Your task to perform on an android device: check the backup settings in the google photos Image 0: 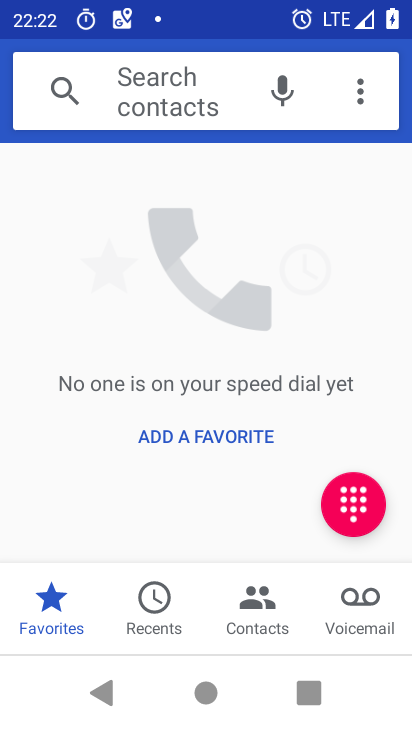
Step 0: drag from (201, 467) to (304, 161)
Your task to perform on an android device: check the backup settings in the google photos Image 1: 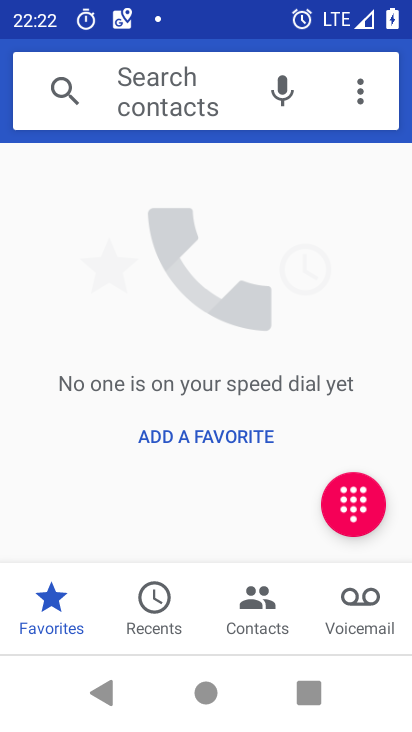
Step 1: press home button
Your task to perform on an android device: check the backup settings in the google photos Image 2: 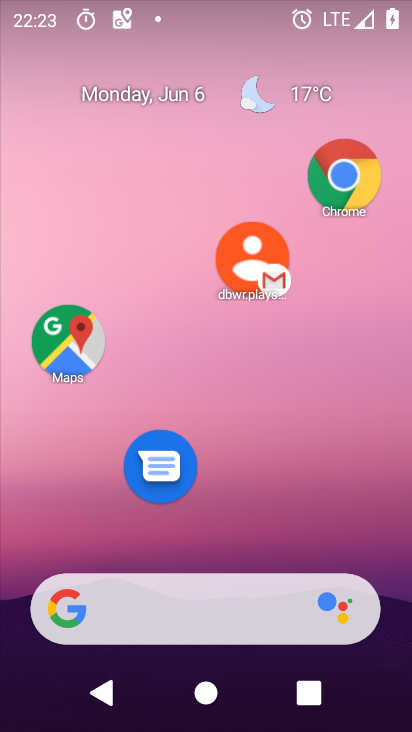
Step 2: drag from (232, 529) to (246, 251)
Your task to perform on an android device: check the backup settings in the google photos Image 3: 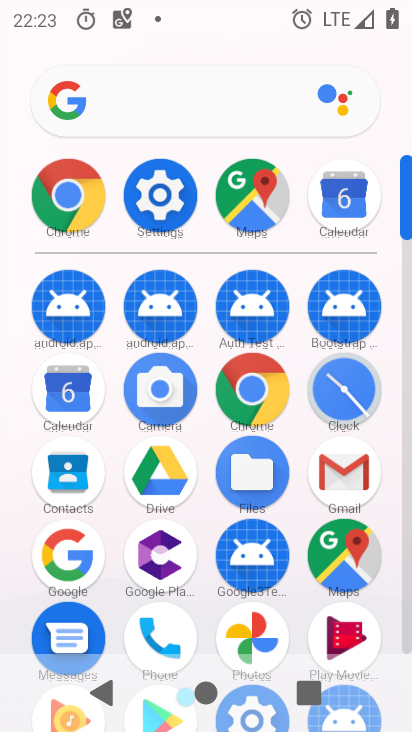
Step 3: click (258, 624)
Your task to perform on an android device: check the backup settings in the google photos Image 4: 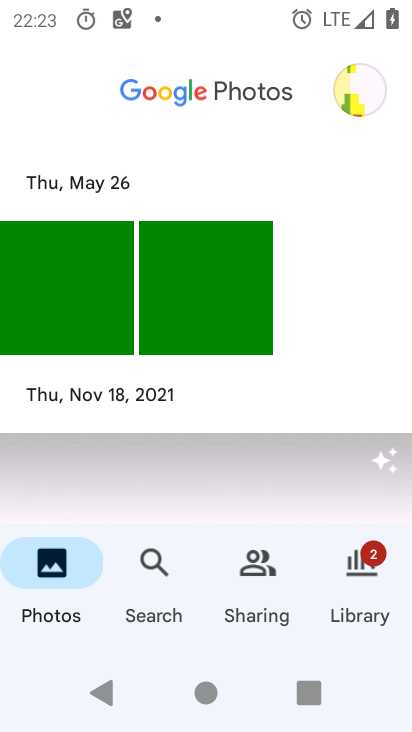
Step 4: click (366, 98)
Your task to perform on an android device: check the backup settings in the google photos Image 5: 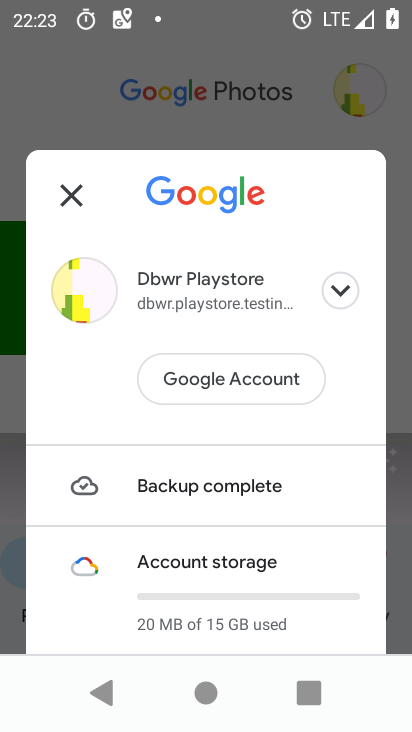
Step 5: drag from (226, 493) to (374, 89)
Your task to perform on an android device: check the backup settings in the google photos Image 6: 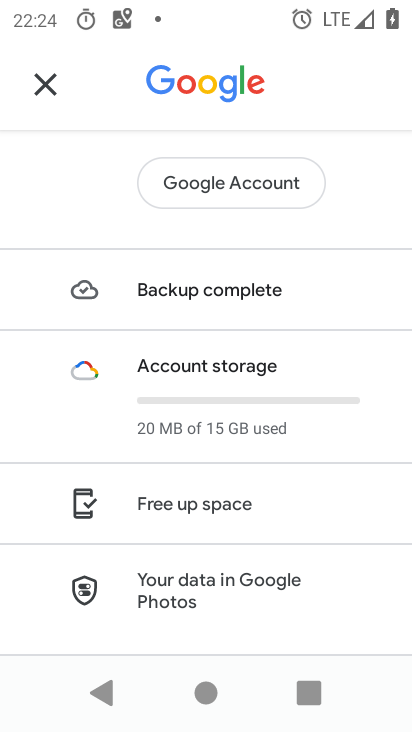
Step 6: drag from (186, 531) to (202, 152)
Your task to perform on an android device: check the backup settings in the google photos Image 7: 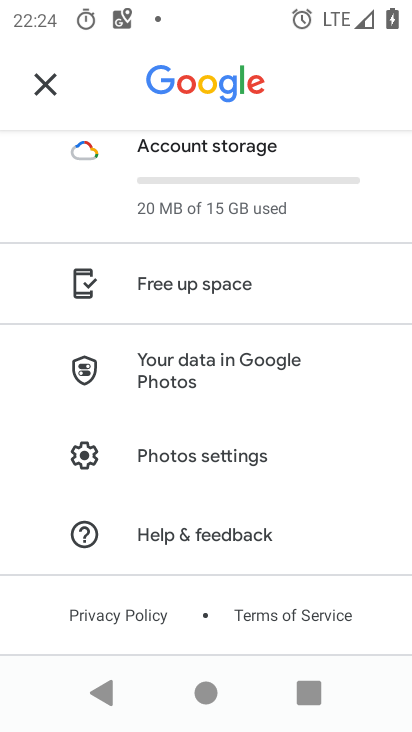
Step 7: click (199, 480)
Your task to perform on an android device: check the backup settings in the google photos Image 8: 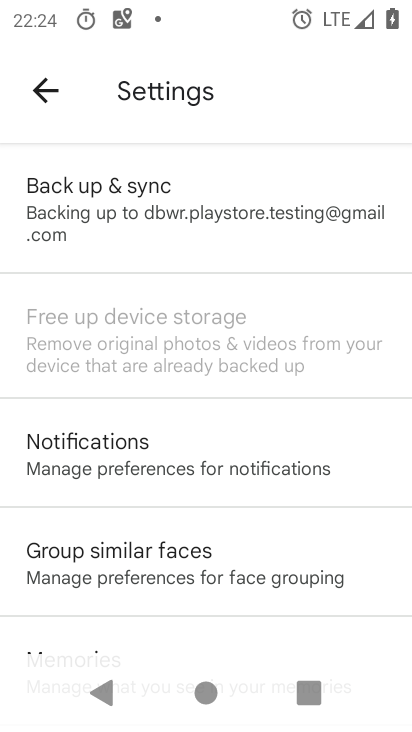
Step 8: click (175, 227)
Your task to perform on an android device: check the backup settings in the google photos Image 9: 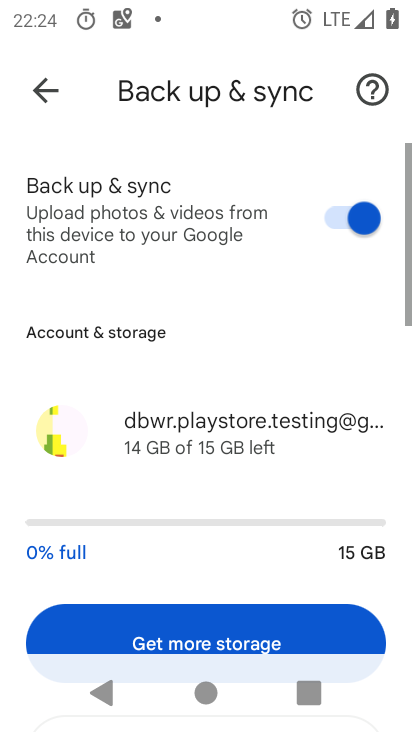
Step 9: task complete